Your task to perform on an android device: clear all cookies in the chrome app Image 0: 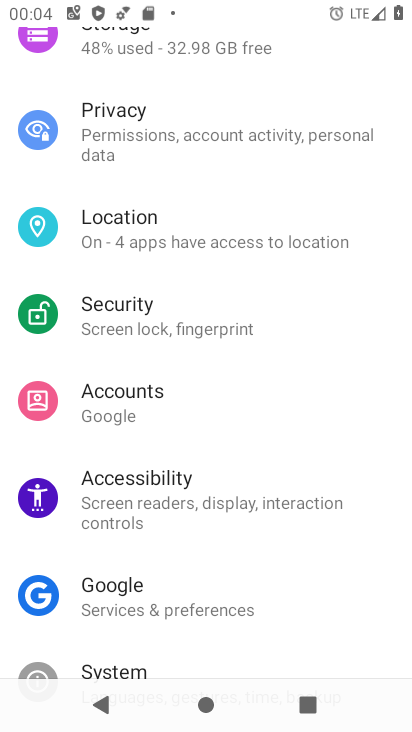
Step 0: press home button
Your task to perform on an android device: clear all cookies in the chrome app Image 1: 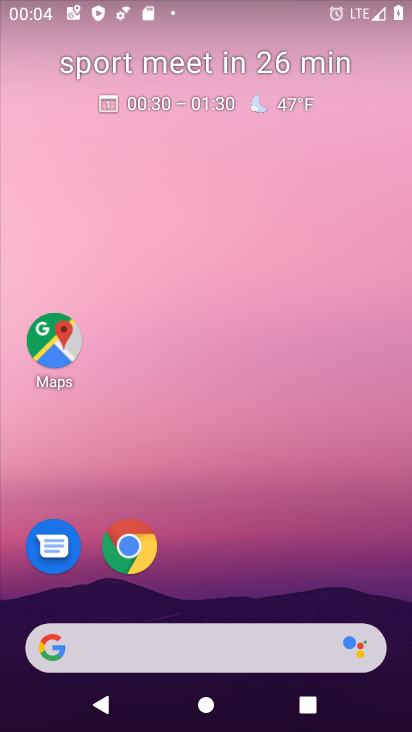
Step 1: click (142, 548)
Your task to perform on an android device: clear all cookies in the chrome app Image 2: 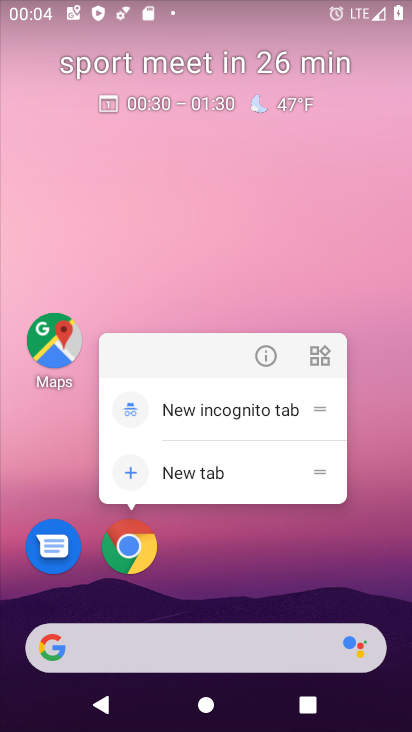
Step 2: click (130, 554)
Your task to perform on an android device: clear all cookies in the chrome app Image 3: 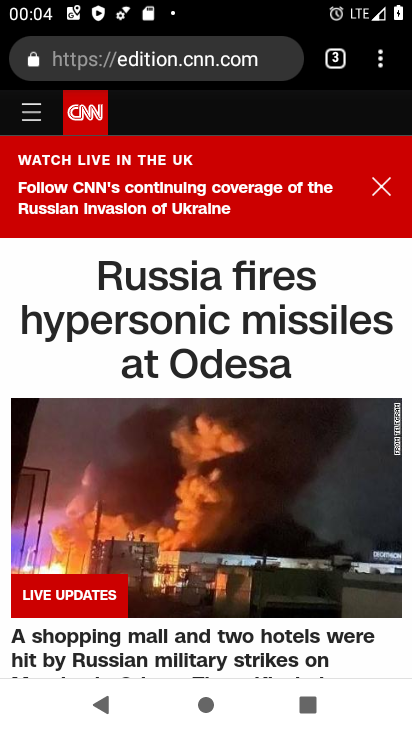
Step 3: drag from (380, 57) to (206, 555)
Your task to perform on an android device: clear all cookies in the chrome app Image 4: 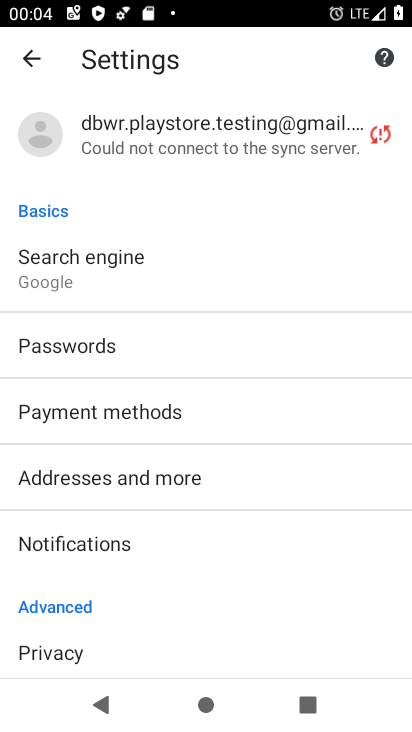
Step 4: drag from (173, 554) to (148, 389)
Your task to perform on an android device: clear all cookies in the chrome app Image 5: 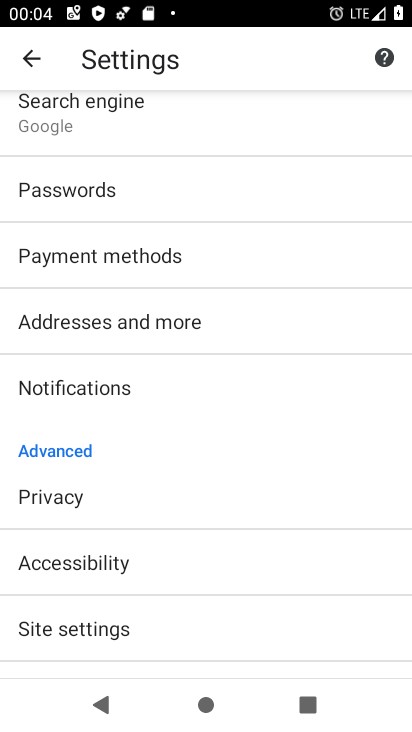
Step 5: click (62, 501)
Your task to perform on an android device: clear all cookies in the chrome app Image 6: 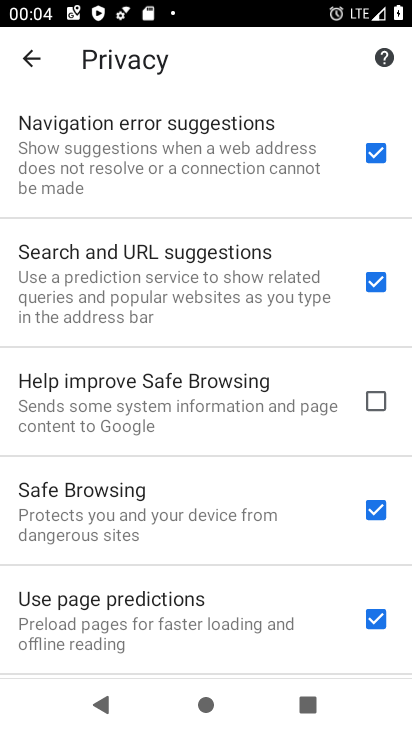
Step 6: drag from (199, 609) to (194, 111)
Your task to perform on an android device: clear all cookies in the chrome app Image 7: 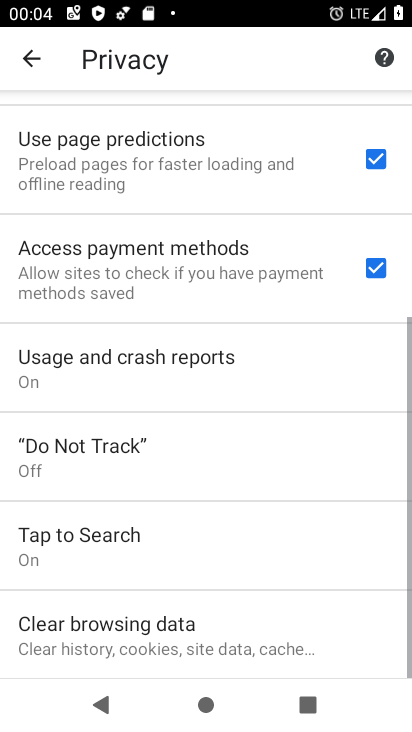
Step 7: drag from (155, 573) to (168, 280)
Your task to perform on an android device: clear all cookies in the chrome app Image 8: 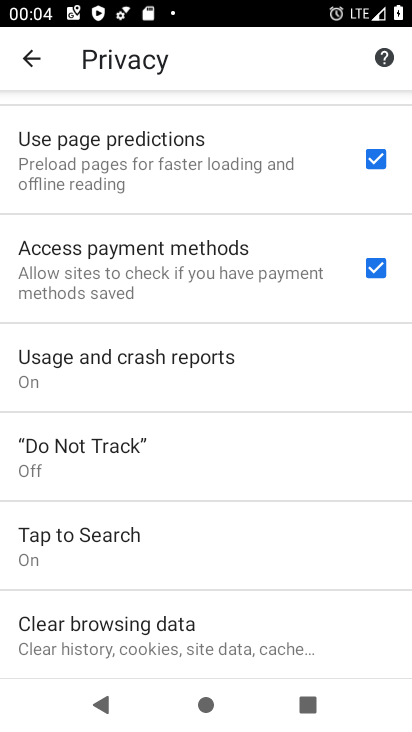
Step 8: click (113, 639)
Your task to perform on an android device: clear all cookies in the chrome app Image 9: 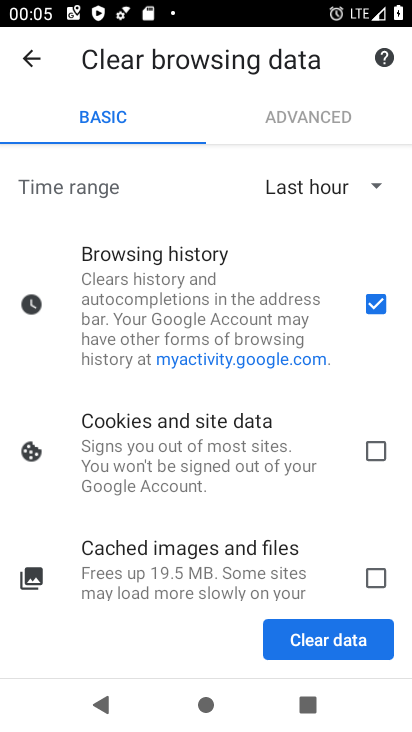
Step 9: click (371, 306)
Your task to perform on an android device: clear all cookies in the chrome app Image 10: 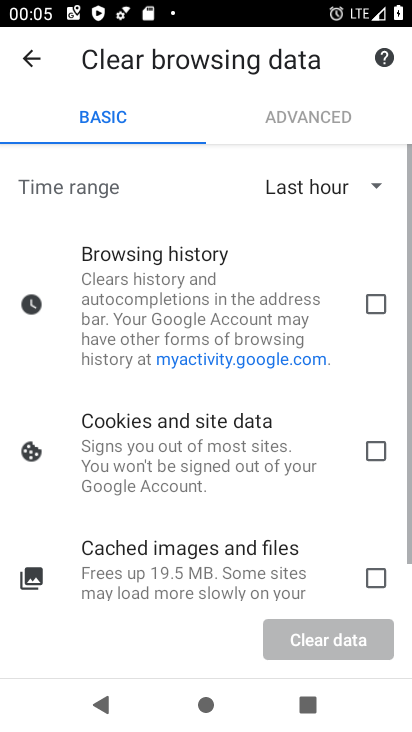
Step 10: click (375, 454)
Your task to perform on an android device: clear all cookies in the chrome app Image 11: 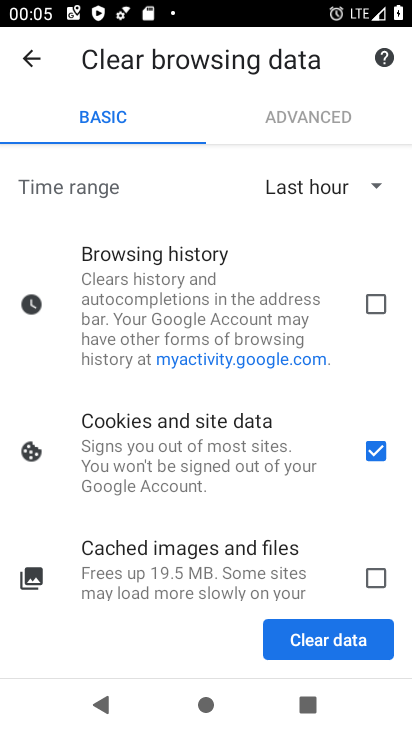
Step 11: drag from (147, 562) to (139, 396)
Your task to perform on an android device: clear all cookies in the chrome app Image 12: 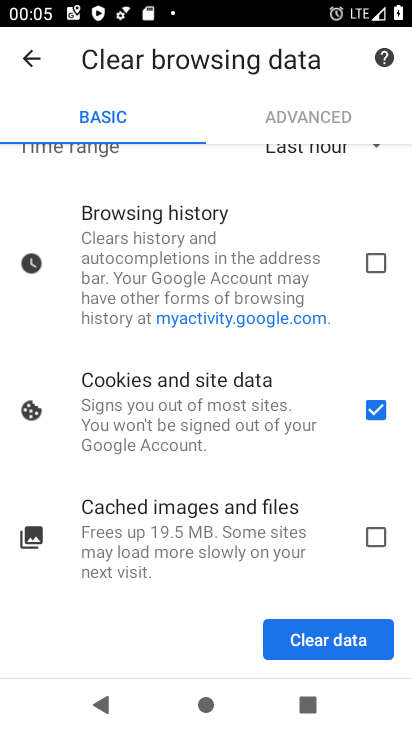
Step 12: click (305, 641)
Your task to perform on an android device: clear all cookies in the chrome app Image 13: 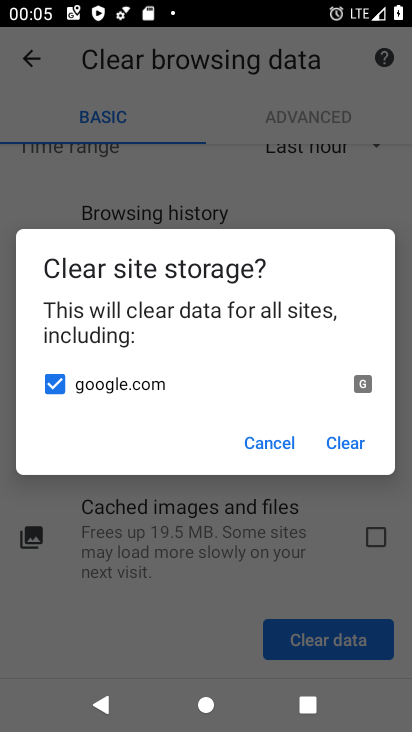
Step 13: click (340, 438)
Your task to perform on an android device: clear all cookies in the chrome app Image 14: 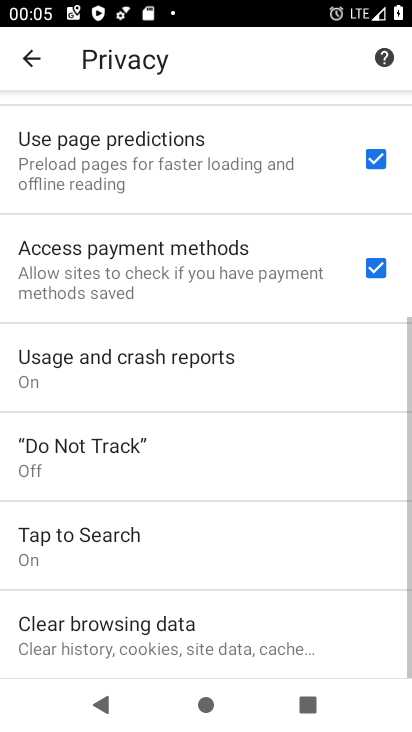
Step 14: task complete